Your task to perform on an android device: turn on bluetooth scan Image 0: 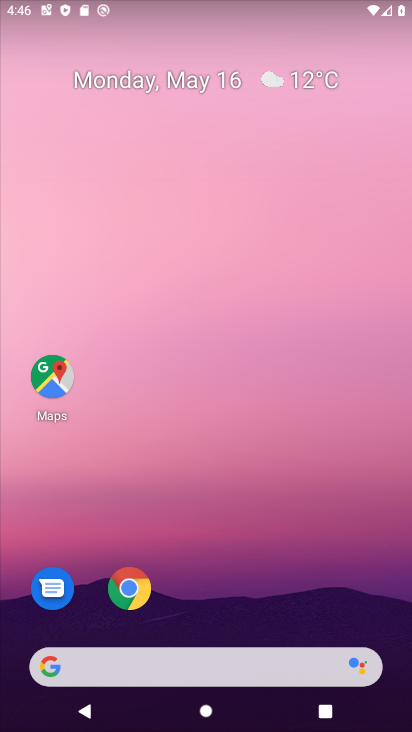
Step 0: drag from (248, 548) to (290, 6)
Your task to perform on an android device: turn on bluetooth scan Image 1: 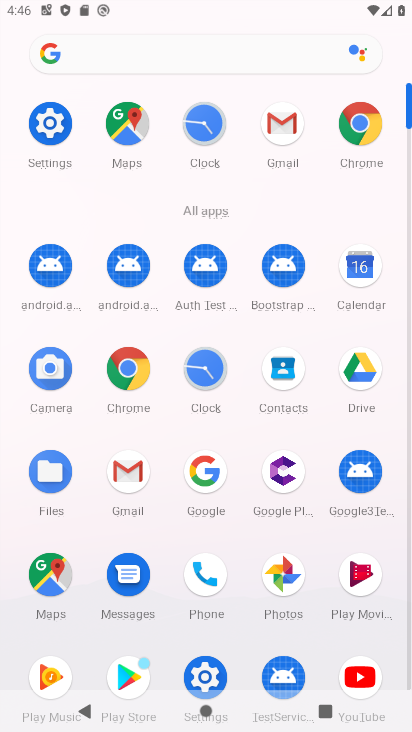
Step 1: click (55, 118)
Your task to perform on an android device: turn on bluetooth scan Image 2: 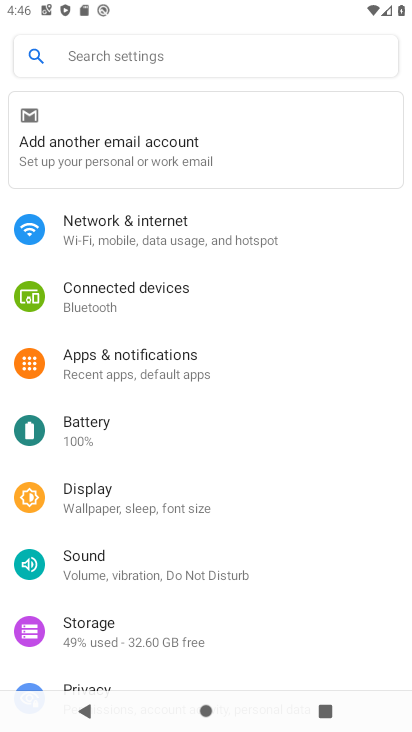
Step 2: click (117, 292)
Your task to perform on an android device: turn on bluetooth scan Image 3: 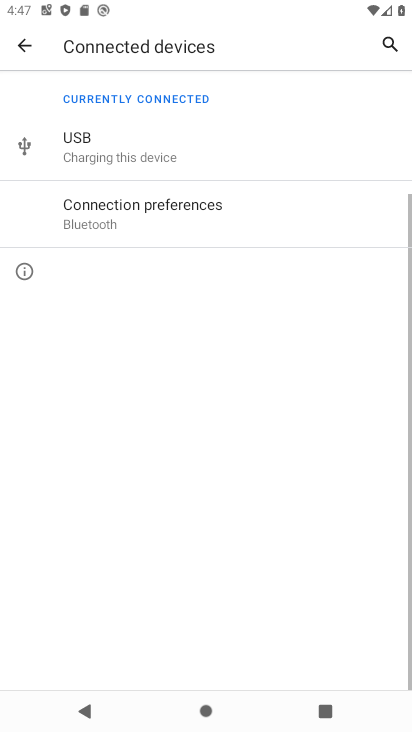
Step 3: click (102, 234)
Your task to perform on an android device: turn on bluetooth scan Image 4: 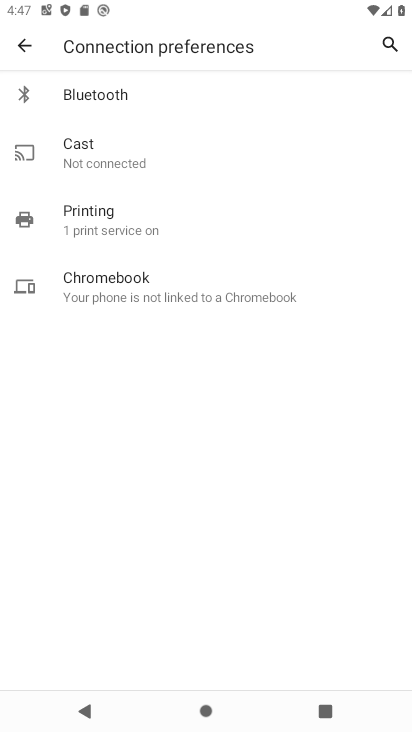
Step 4: click (96, 101)
Your task to perform on an android device: turn on bluetooth scan Image 5: 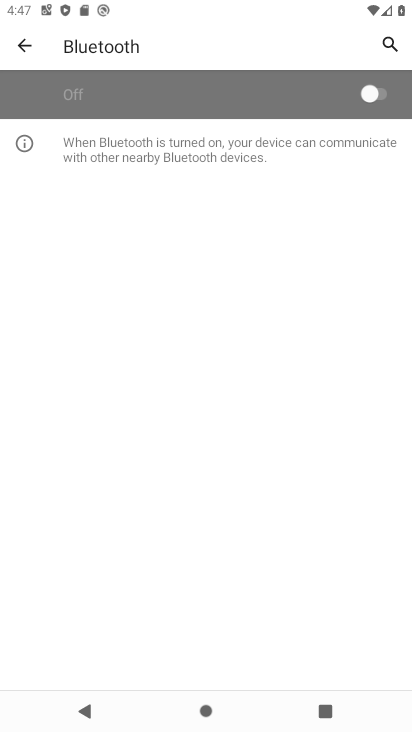
Step 5: click (372, 100)
Your task to perform on an android device: turn on bluetooth scan Image 6: 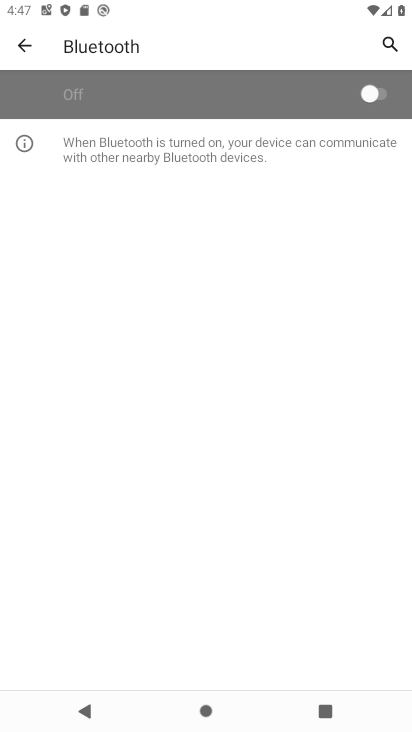
Step 6: task complete